Your task to perform on an android device: toggle airplane mode Image 0: 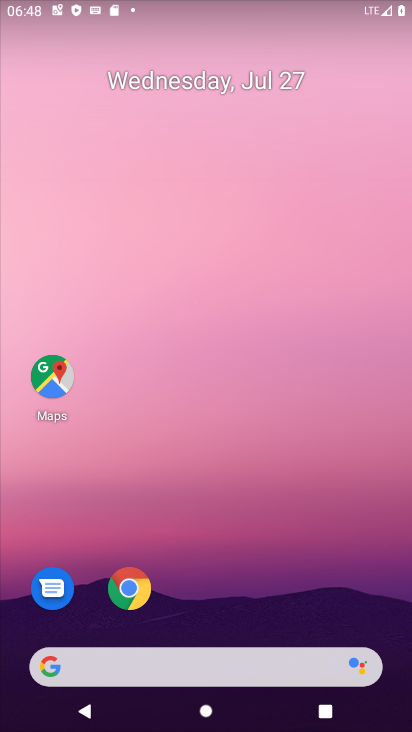
Step 0: drag from (320, 662) to (286, 15)
Your task to perform on an android device: toggle airplane mode Image 1: 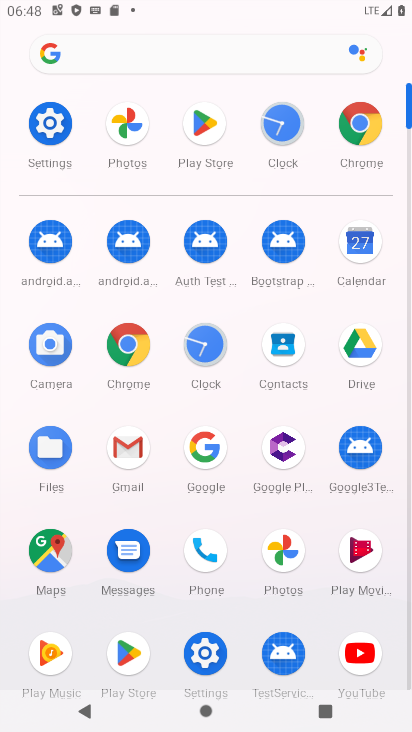
Step 1: click (42, 112)
Your task to perform on an android device: toggle airplane mode Image 2: 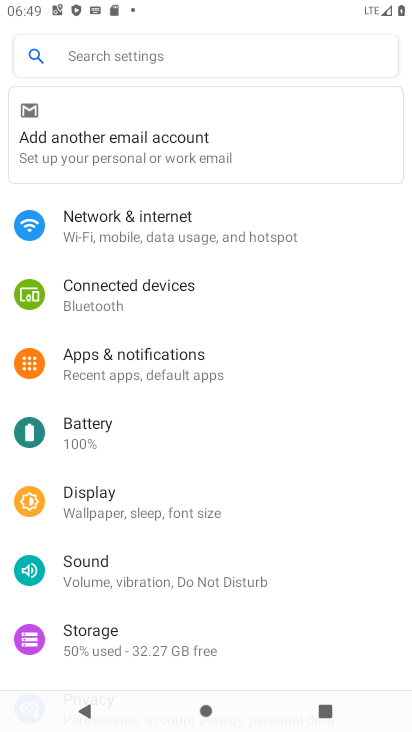
Step 2: click (193, 230)
Your task to perform on an android device: toggle airplane mode Image 3: 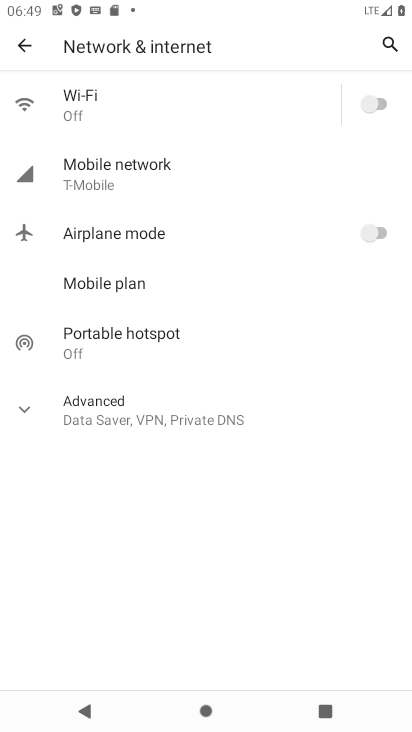
Step 3: click (378, 232)
Your task to perform on an android device: toggle airplane mode Image 4: 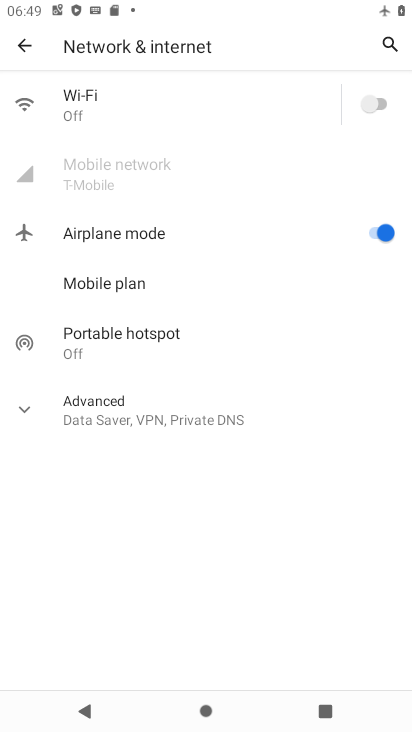
Step 4: task complete